Your task to perform on an android device: Search for shimano brake pads on Walmart Image 0: 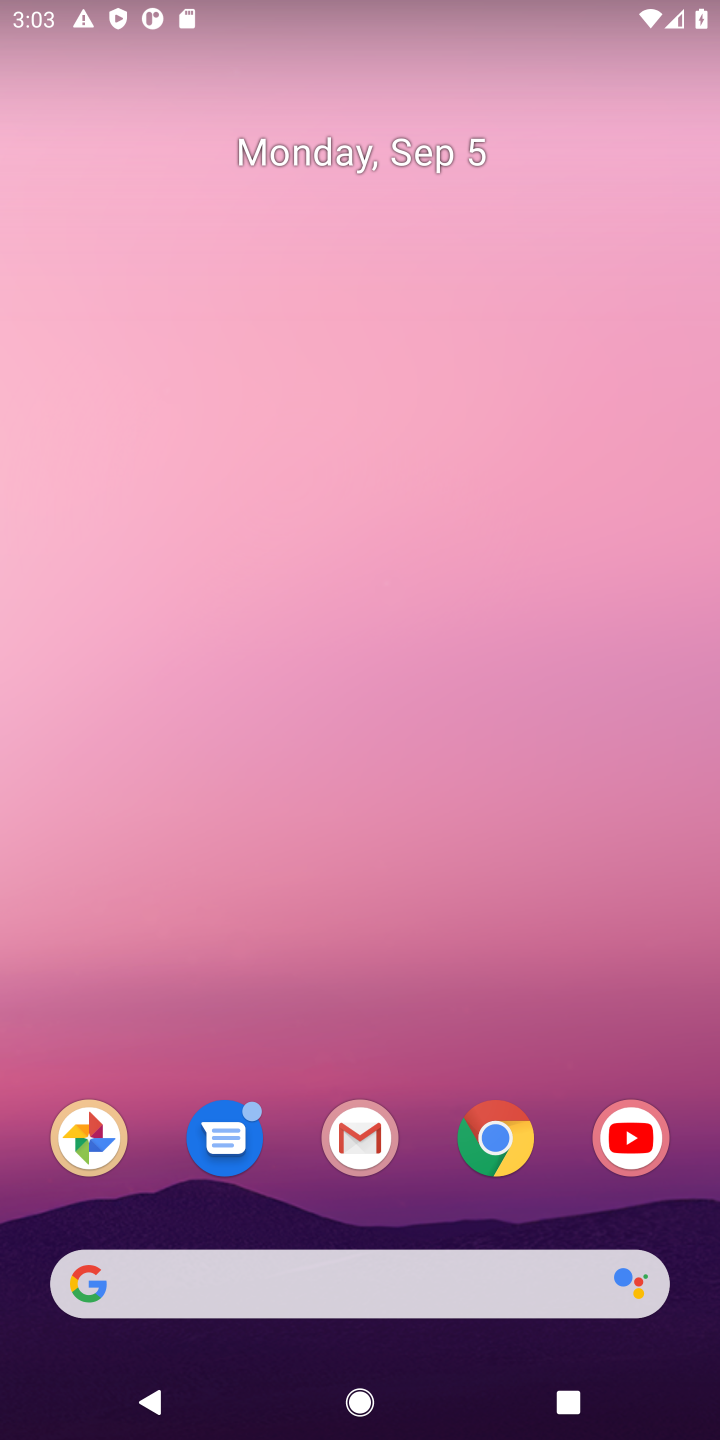
Step 0: click (494, 1139)
Your task to perform on an android device: Search for shimano brake pads on Walmart Image 1: 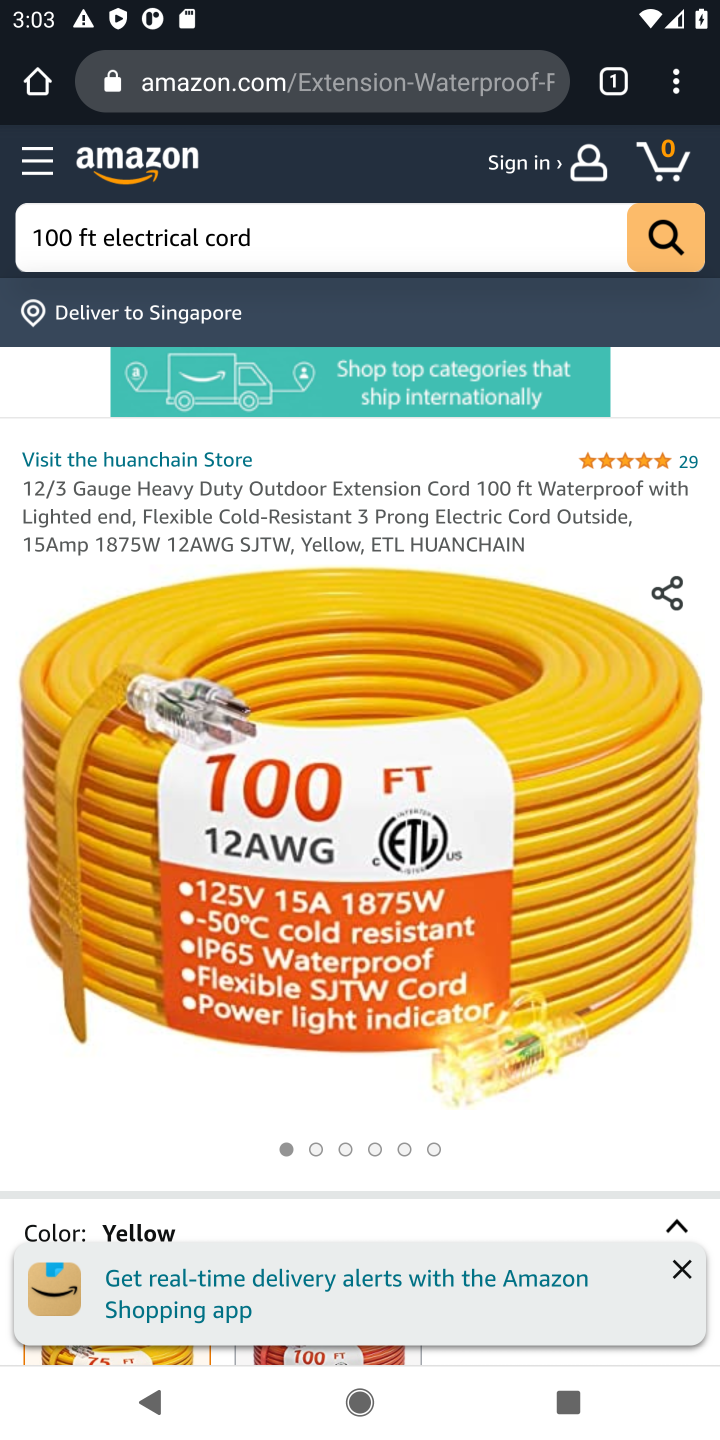
Step 1: click (401, 88)
Your task to perform on an android device: Search for shimano brake pads on Walmart Image 2: 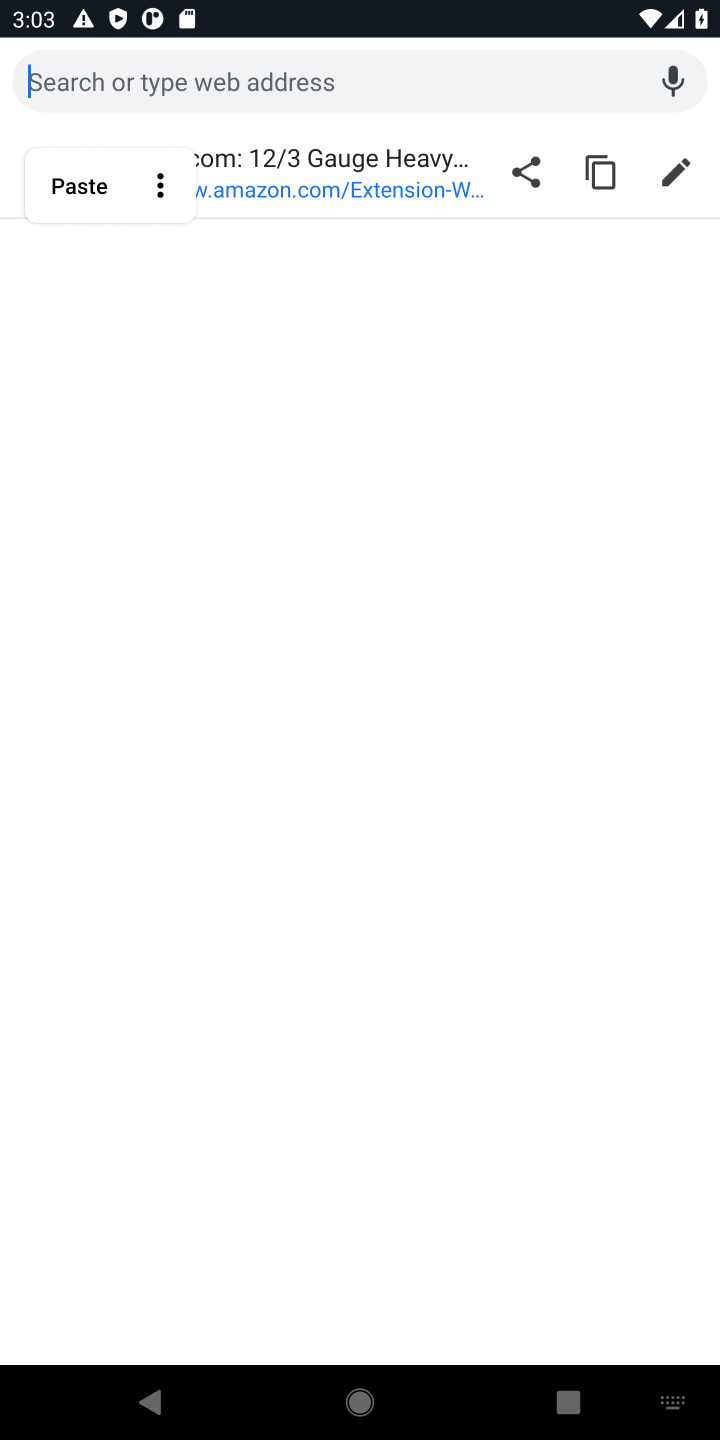
Step 2: type "Walmart"
Your task to perform on an android device: Search for shimano brake pads on Walmart Image 3: 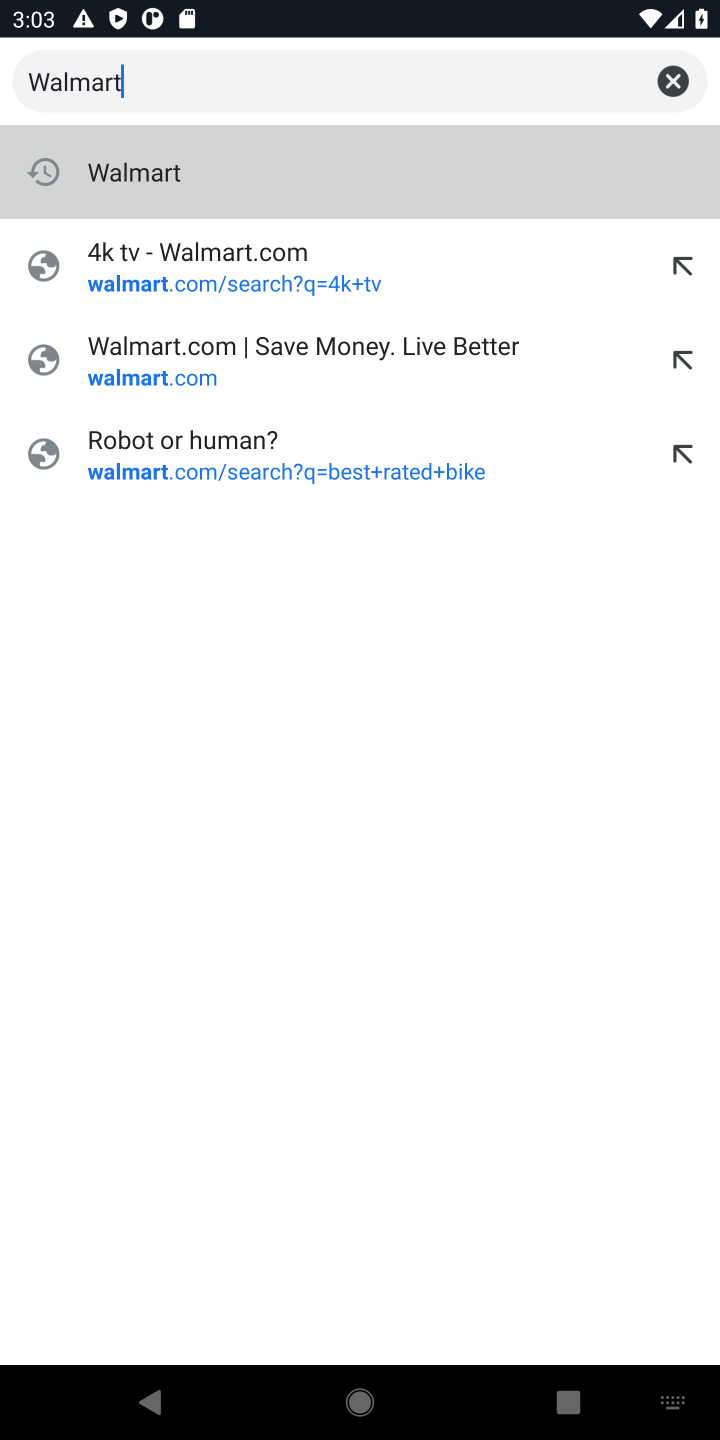
Step 3: click (286, 170)
Your task to perform on an android device: Search for shimano brake pads on Walmart Image 4: 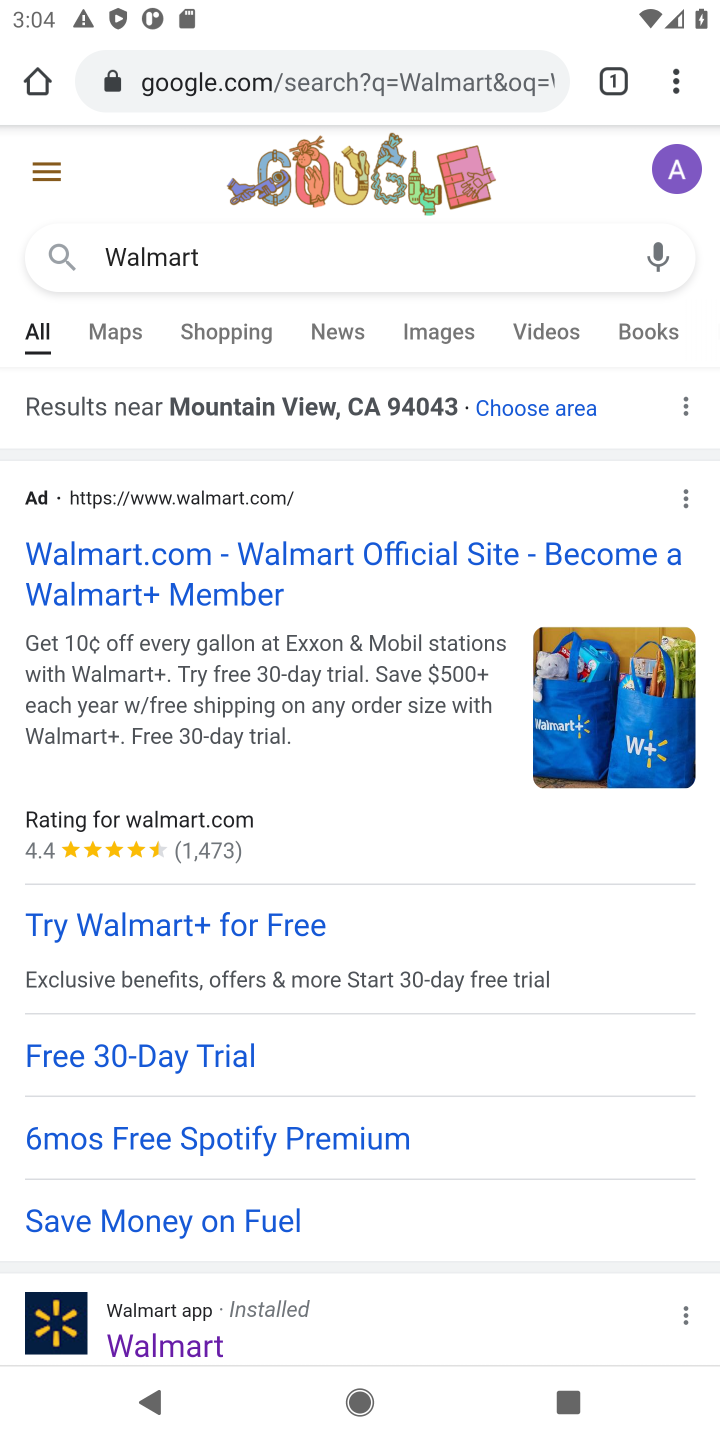
Step 4: drag from (306, 1339) to (335, 671)
Your task to perform on an android device: Search for shimano brake pads on Walmart Image 5: 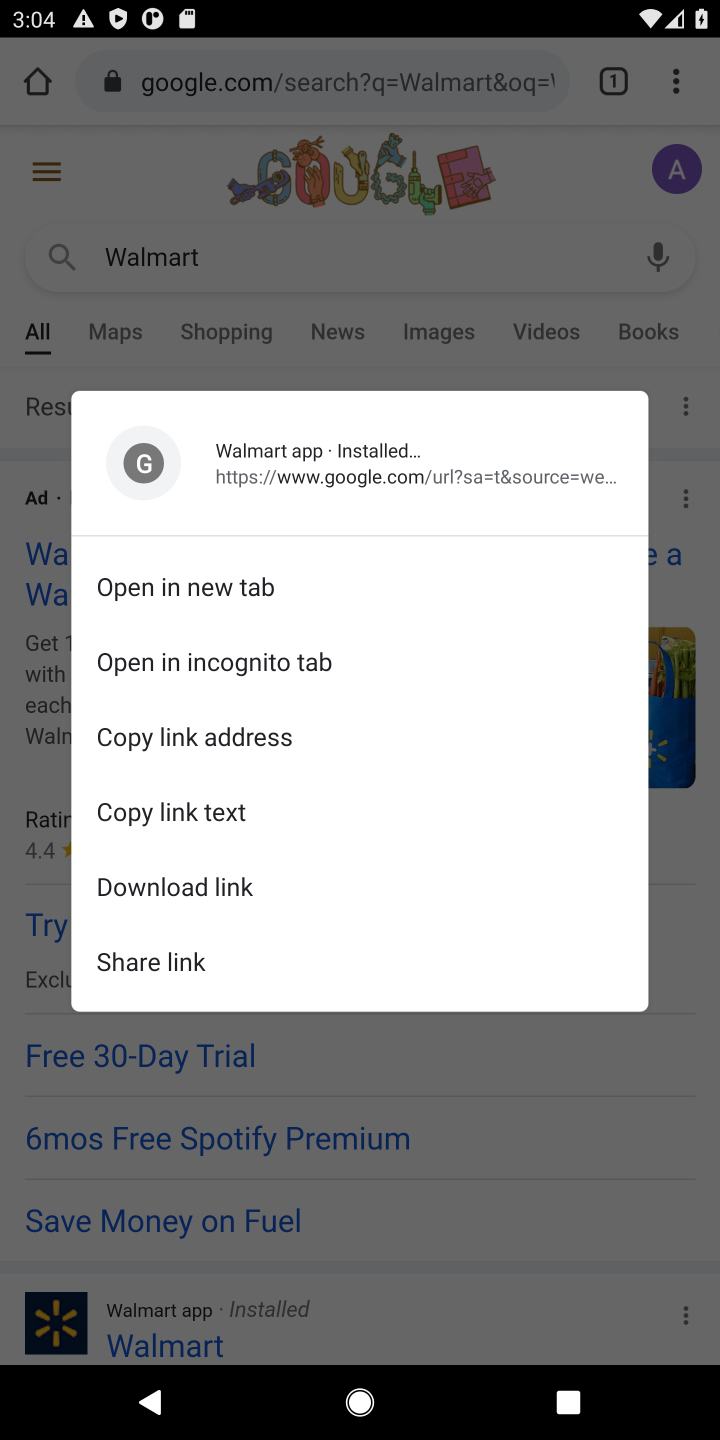
Step 5: click (706, 931)
Your task to perform on an android device: Search for shimano brake pads on Walmart Image 6: 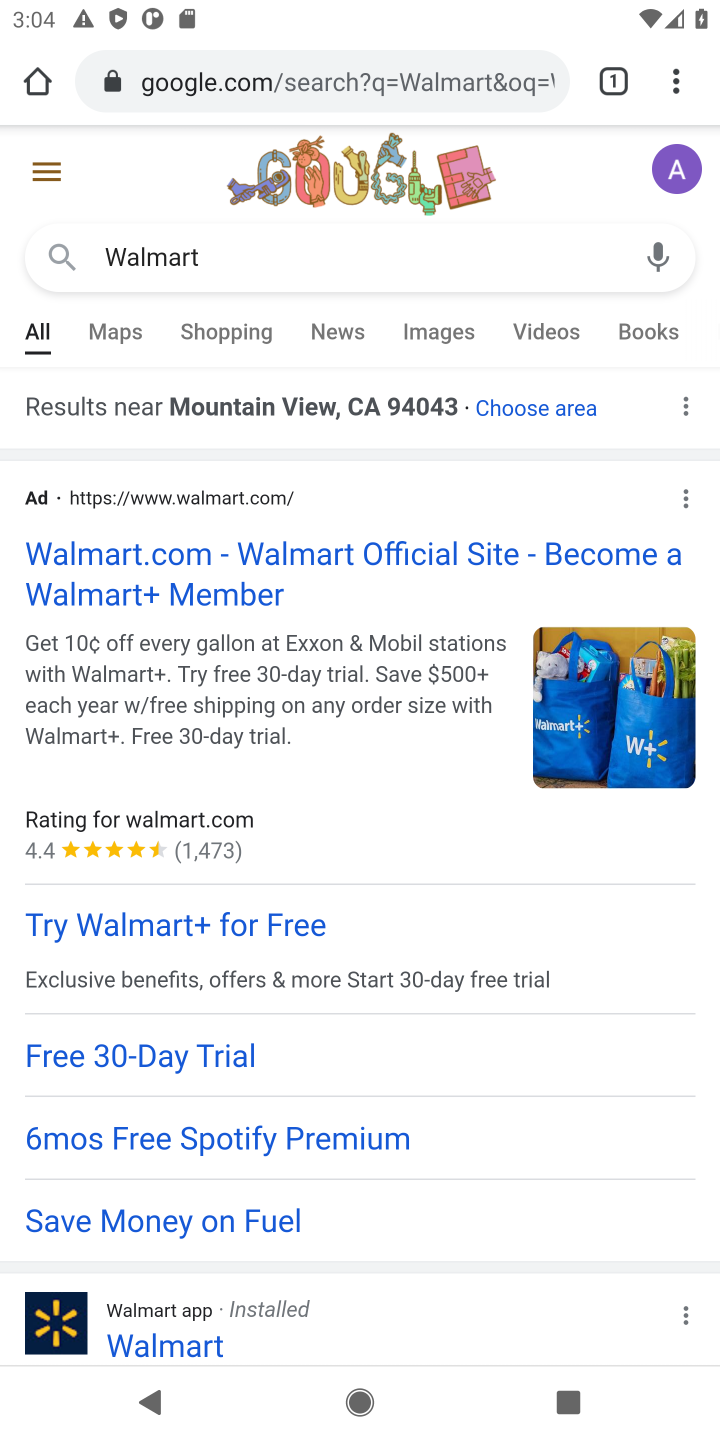
Step 6: click (232, 1348)
Your task to perform on an android device: Search for shimano brake pads on Walmart Image 7: 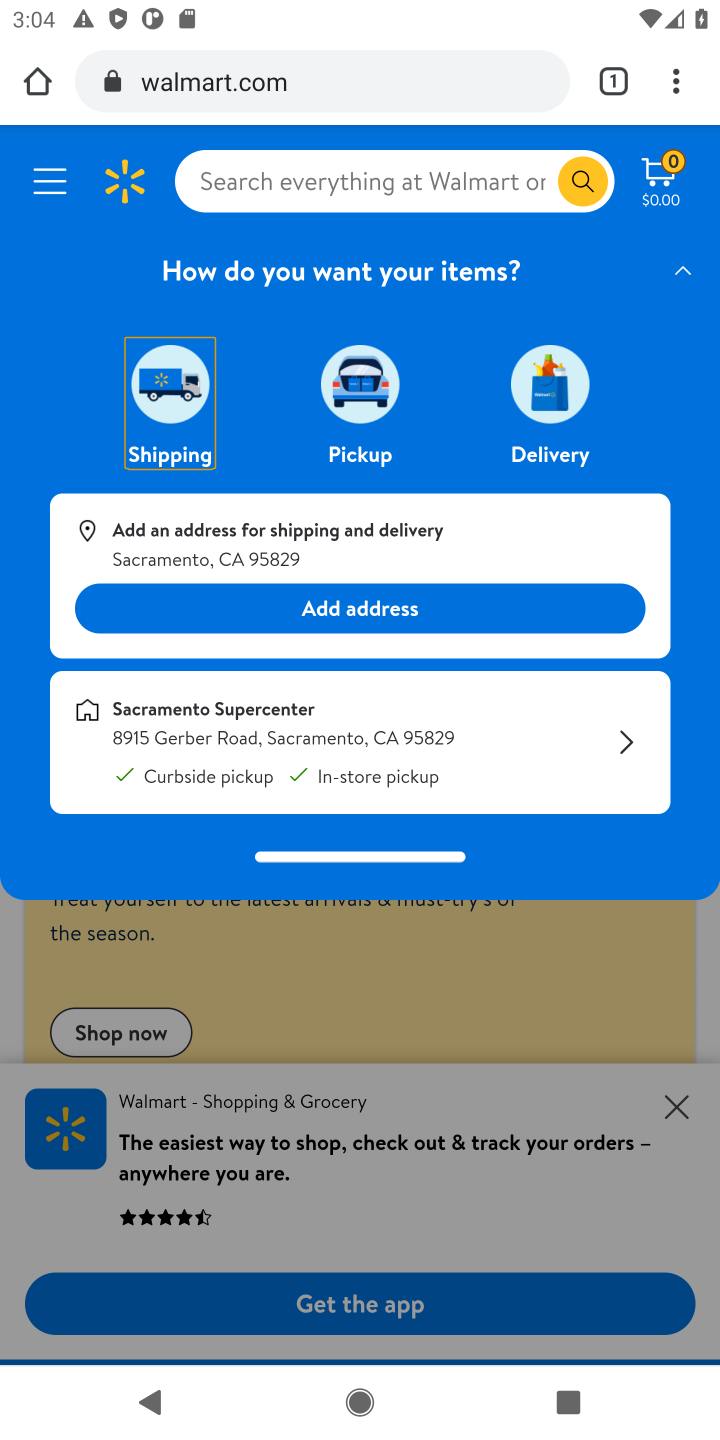
Step 7: click (319, 83)
Your task to perform on an android device: Search for shimano brake pads on Walmart Image 8: 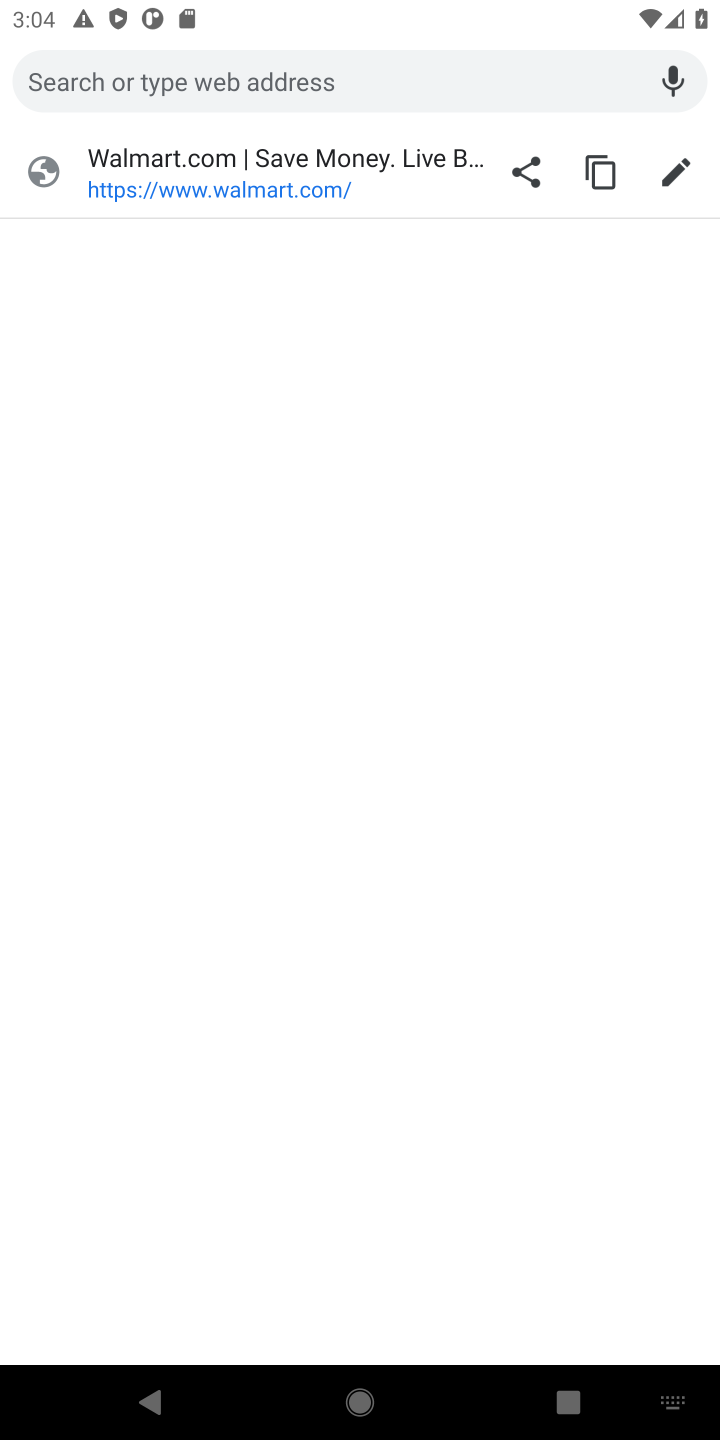
Step 8: click (351, 83)
Your task to perform on an android device: Search for shimano brake pads on Walmart Image 9: 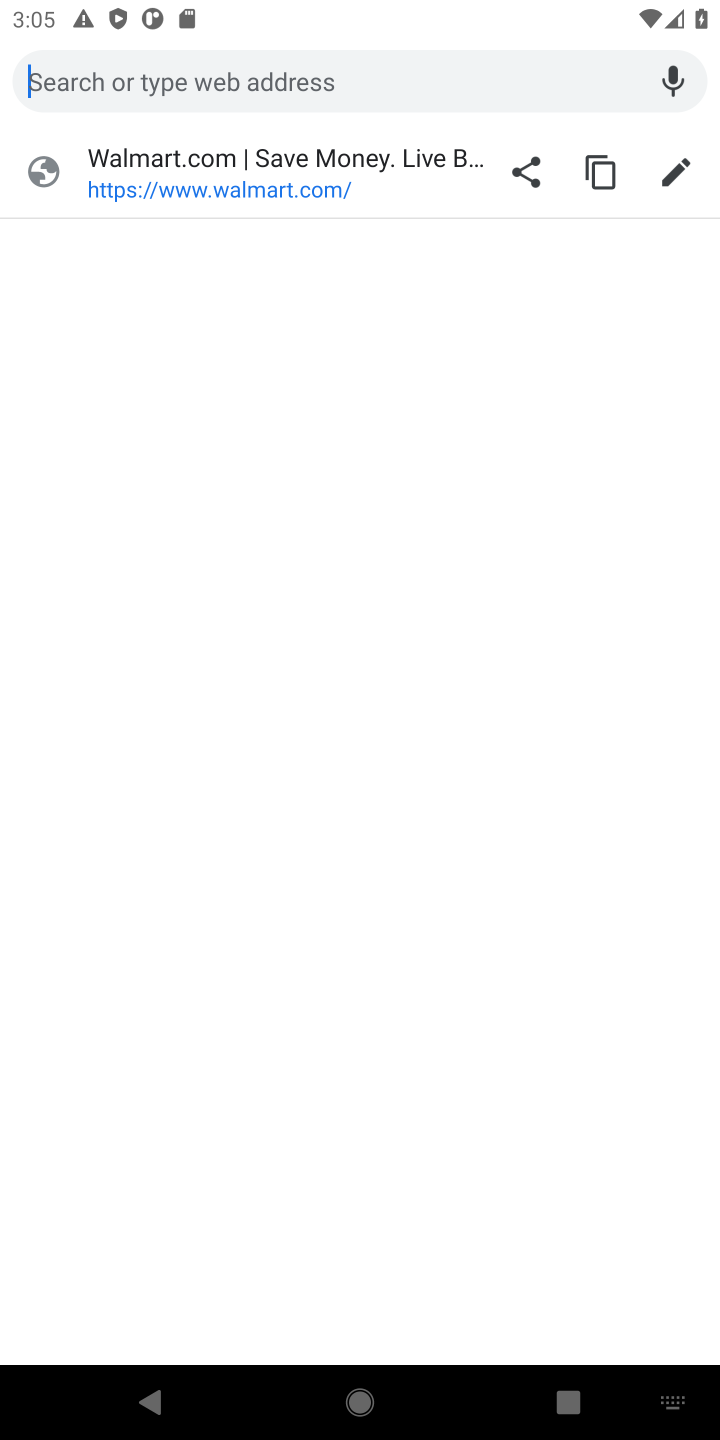
Step 9: type "shimano brake pads"
Your task to perform on an android device: Search for shimano brake pads on Walmart Image 10: 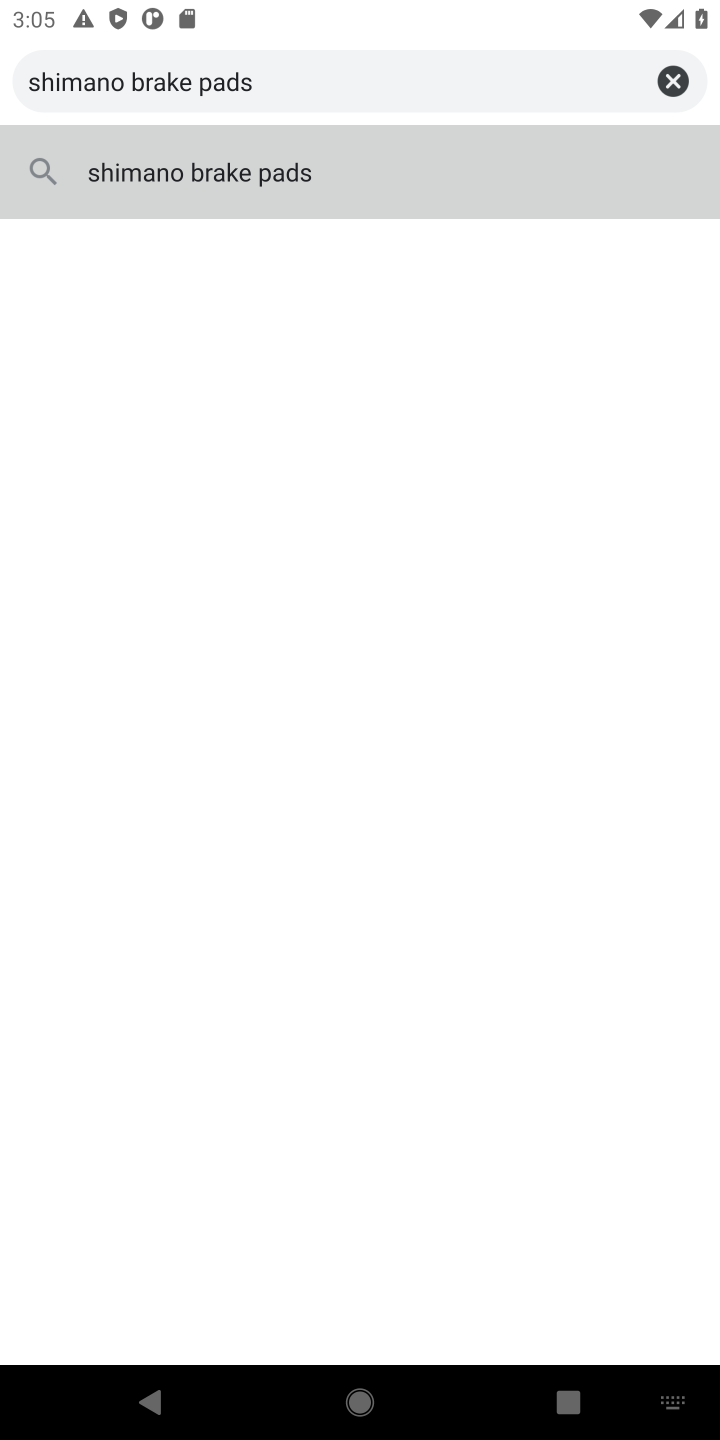
Step 10: click (280, 170)
Your task to perform on an android device: Search for shimano brake pads on Walmart Image 11: 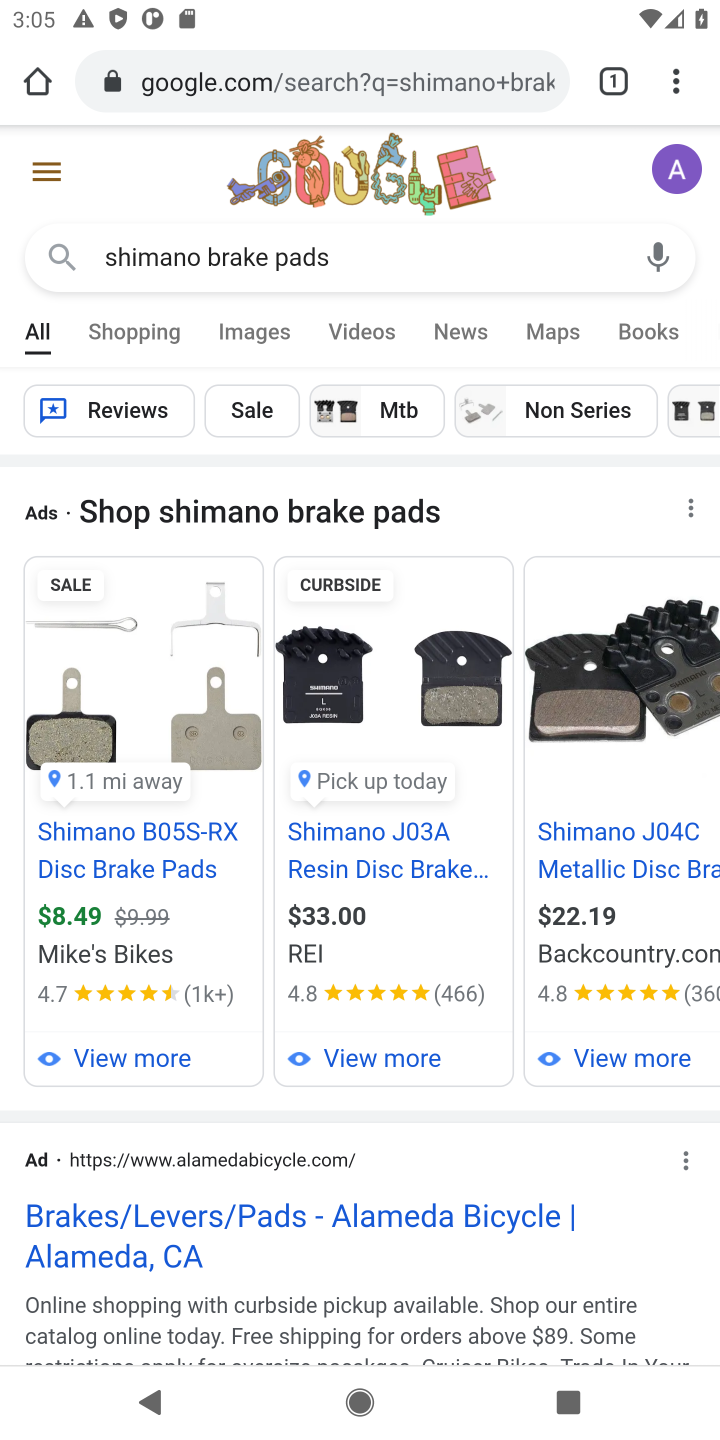
Step 11: task complete